Your task to perform on an android device: What's the weather today? Image 0: 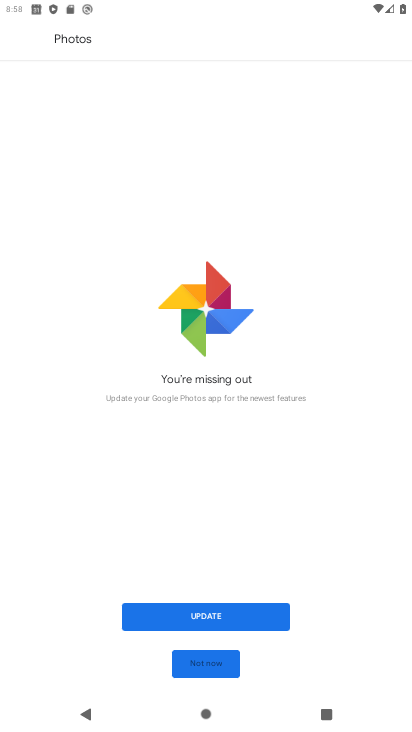
Step 0: press home button
Your task to perform on an android device: What's the weather today? Image 1: 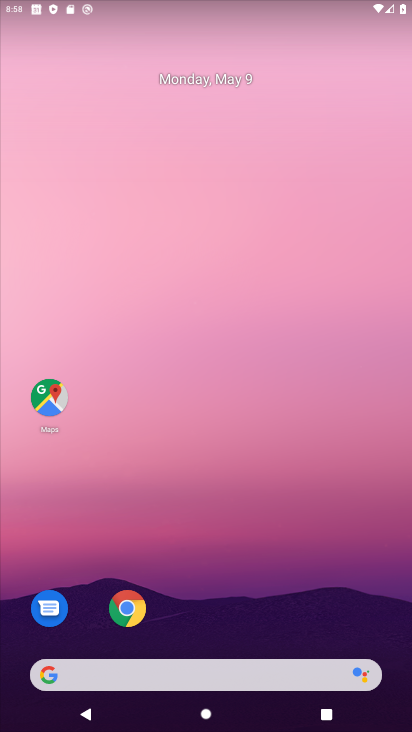
Step 1: click (46, 685)
Your task to perform on an android device: What's the weather today? Image 2: 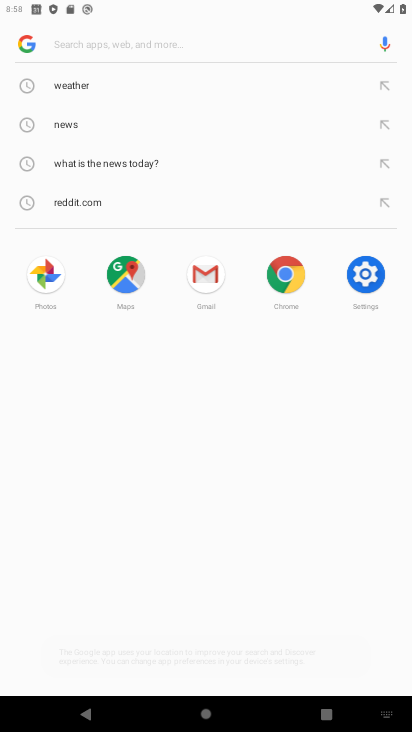
Step 2: click (21, 35)
Your task to perform on an android device: What's the weather today? Image 3: 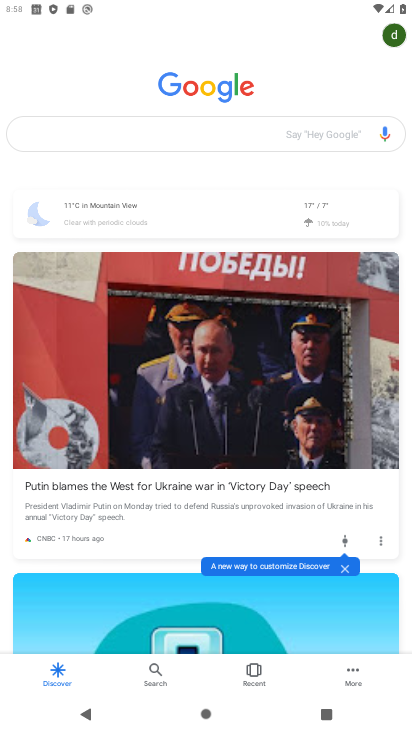
Step 3: click (183, 219)
Your task to perform on an android device: What's the weather today? Image 4: 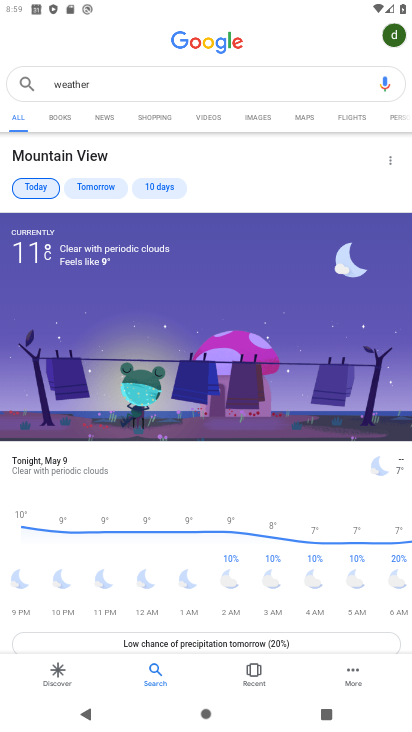
Step 4: task complete